Your task to perform on an android device: turn off improve location accuracy Image 0: 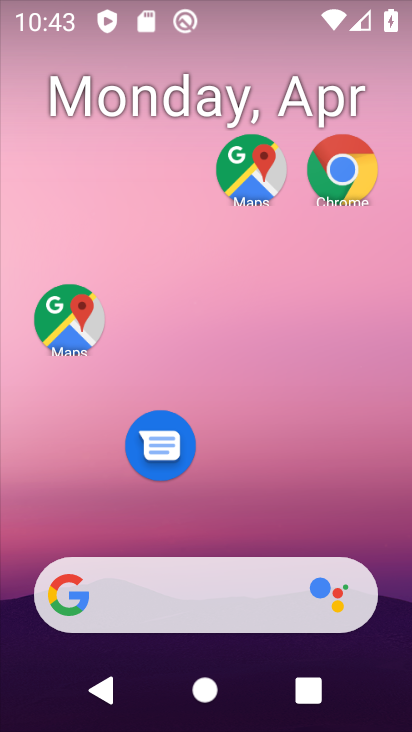
Step 0: drag from (231, 498) to (299, 44)
Your task to perform on an android device: turn off improve location accuracy Image 1: 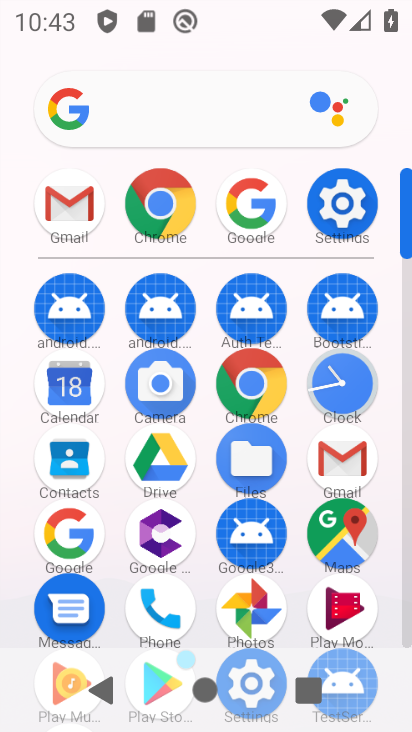
Step 1: click (348, 211)
Your task to perform on an android device: turn off improve location accuracy Image 2: 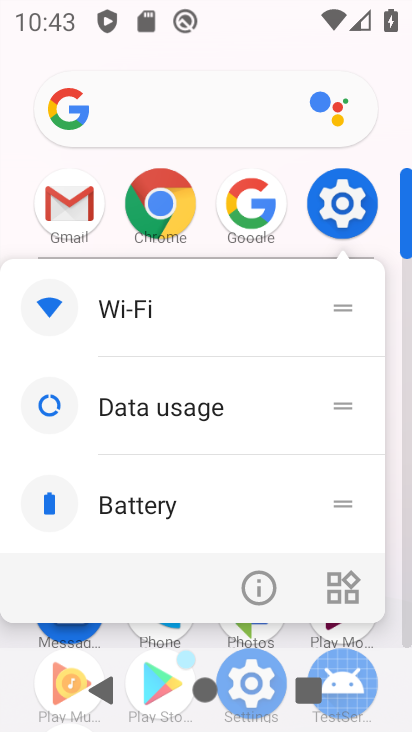
Step 2: click (347, 210)
Your task to perform on an android device: turn off improve location accuracy Image 3: 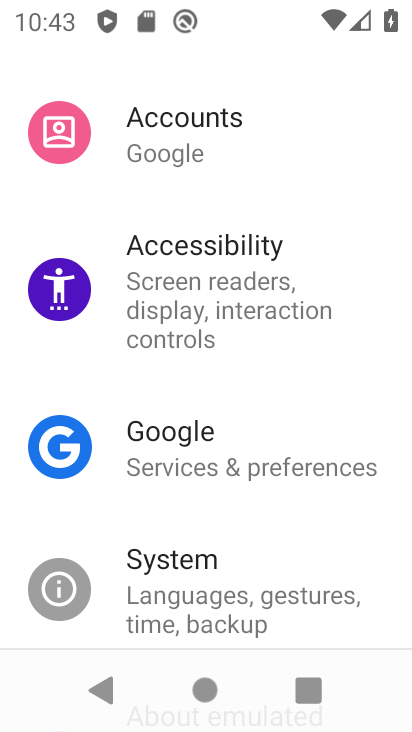
Step 3: drag from (242, 517) to (244, 660)
Your task to perform on an android device: turn off improve location accuracy Image 4: 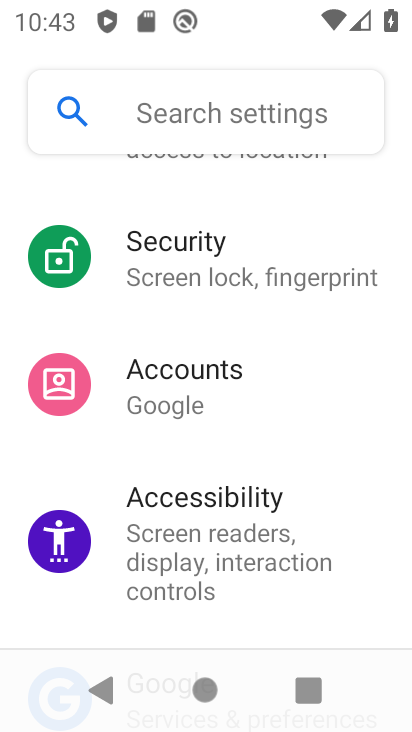
Step 4: drag from (290, 359) to (237, 714)
Your task to perform on an android device: turn off improve location accuracy Image 5: 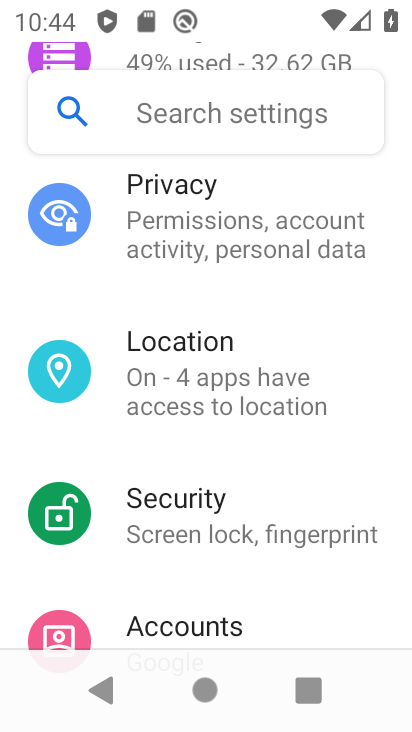
Step 5: click (261, 383)
Your task to perform on an android device: turn off improve location accuracy Image 6: 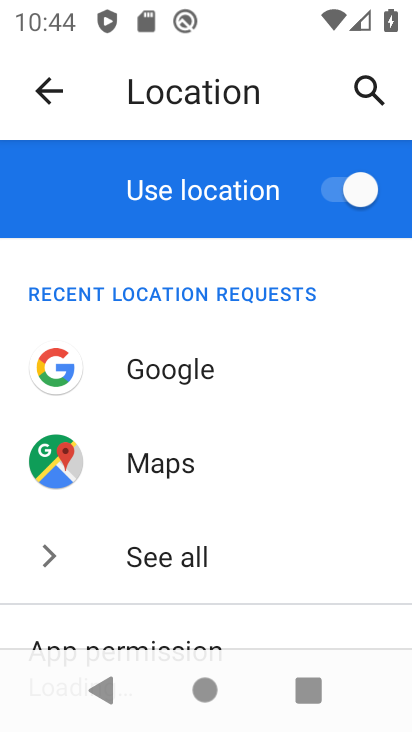
Step 6: drag from (277, 615) to (377, 262)
Your task to perform on an android device: turn off improve location accuracy Image 7: 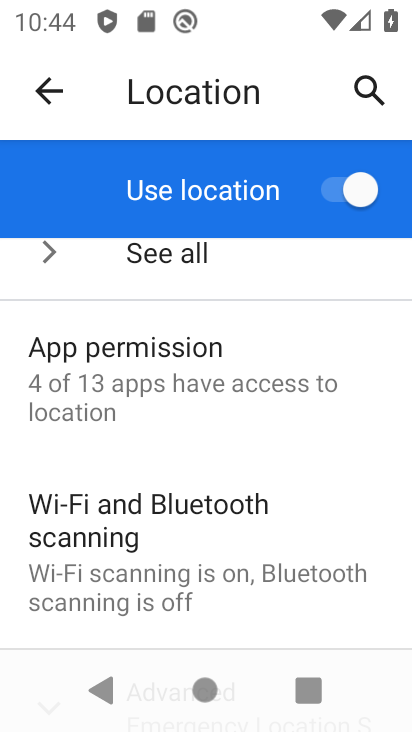
Step 7: drag from (295, 516) to (411, 230)
Your task to perform on an android device: turn off improve location accuracy Image 8: 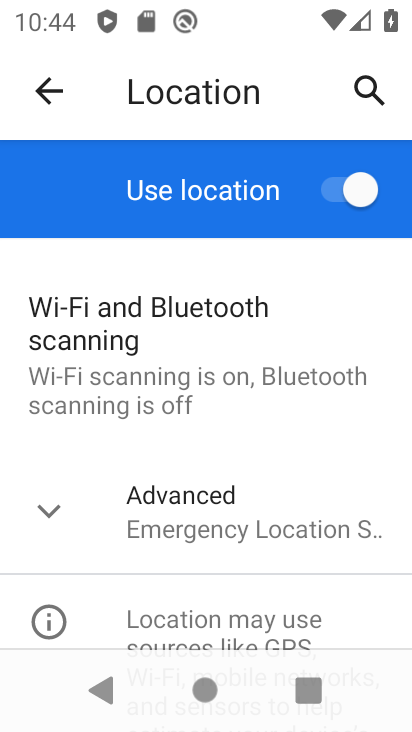
Step 8: click (285, 535)
Your task to perform on an android device: turn off improve location accuracy Image 9: 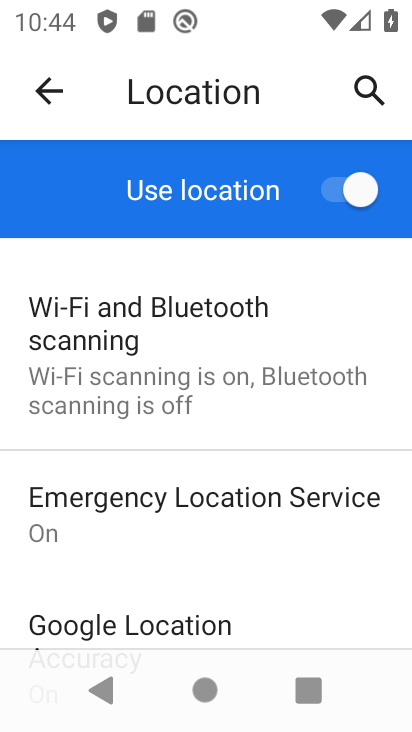
Step 9: drag from (289, 584) to (367, 209)
Your task to perform on an android device: turn off improve location accuracy Image 10: 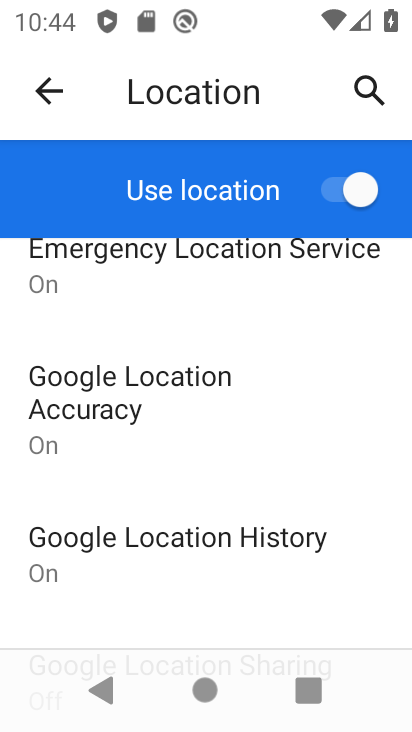
Step 10: click (101, 410)
Your task to perform on an android device: turn off improve location accuracy Image 11: 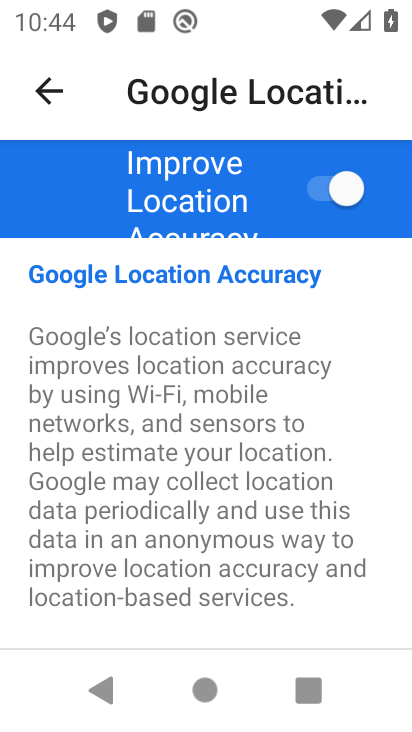
Step 11: click (325, 175)
Your task to perform on an android device: turn off improve location accuracy Image 12: 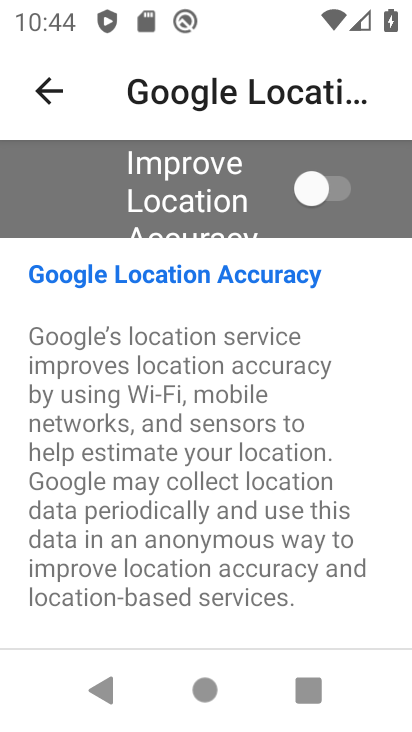
Step 12: task complete